Your task to perform on an android device: check storage Image 0: 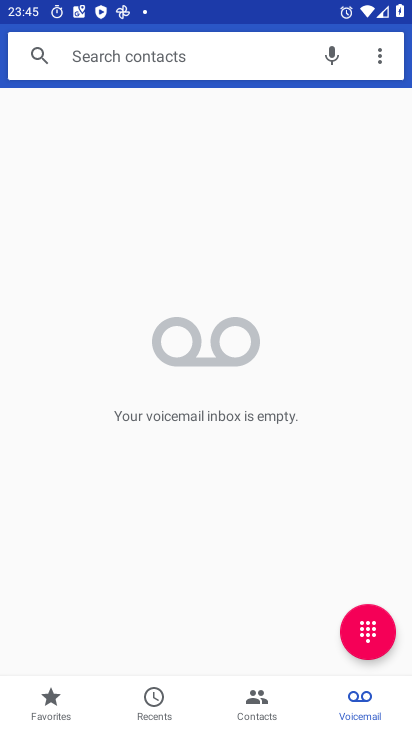
Step 0: press home button
Your task to perform on an android device: check storage Image 1: 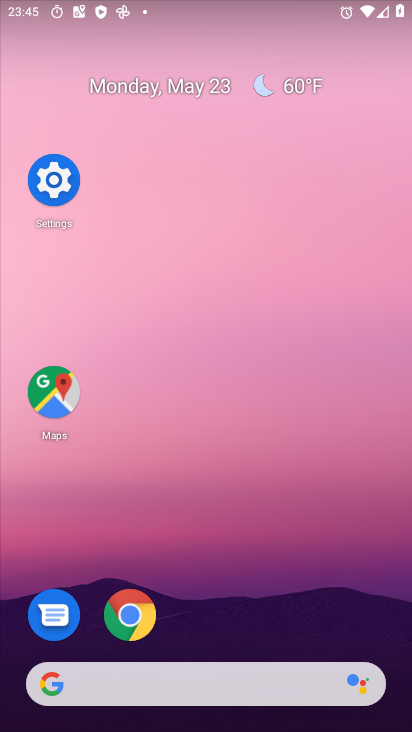
Step 1: click (57, 185)
Your task to perform on an android device: check storage Image 2: 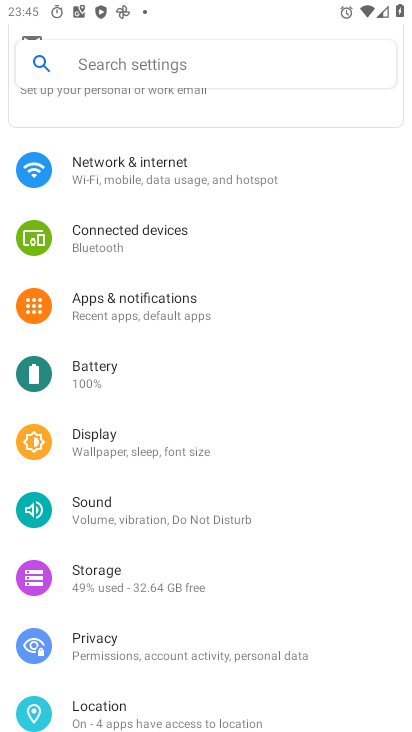
Step 2: click (139, 577)
Your task to perform on an android device: check storage Image 3: 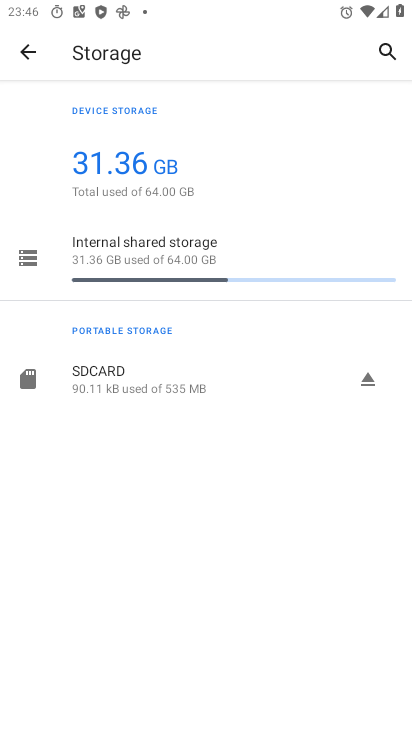
Step 3: task complete